Your task to perform on an android device: toggle javascript in the chrome app Image 0: 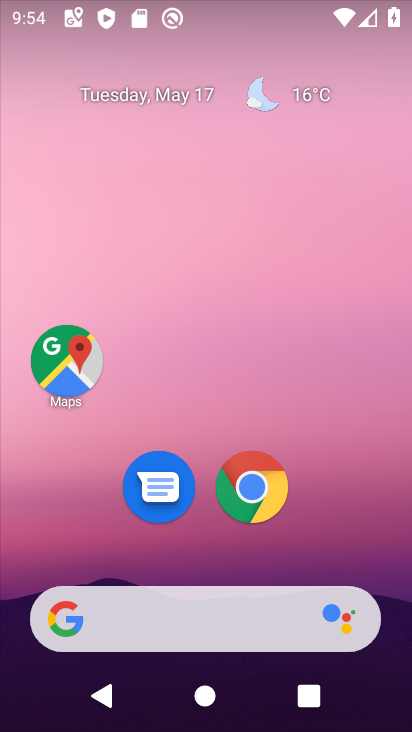
Step 0: click (266, 491)
Your task to perform on an android device: toggle javascript in the chrome app Image 1: 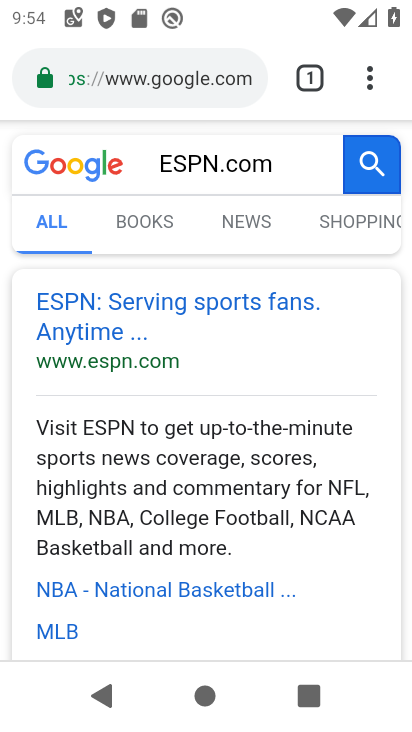
Step 1: click (371, 73)
Your task to perform on an android device: toggle javascript in the chrome app Image 2: 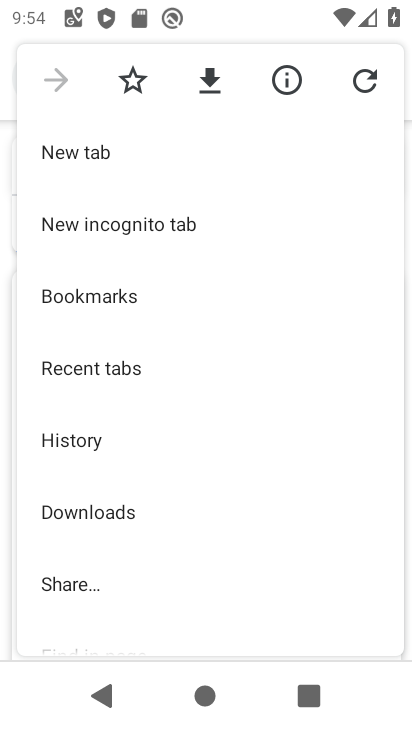
Step 2: drag from (148, 560) to (148, 219)
Your task to perform on an android device: toggle javascript in the chrome app Image 3: 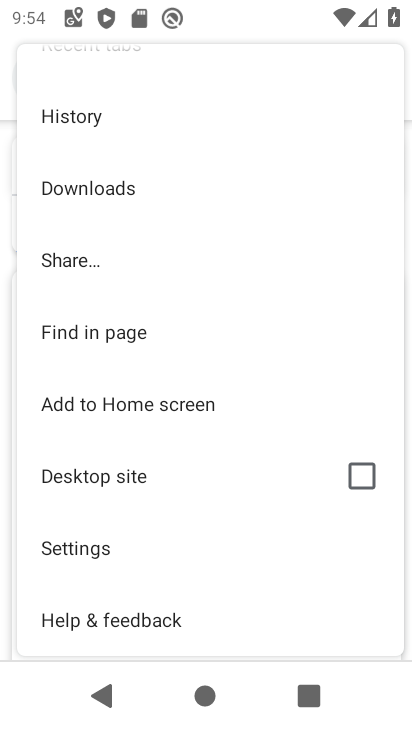
Step 3: click (107, 553)
Your task to perform on an android device: toggle javascript in the chrome app Image 4: 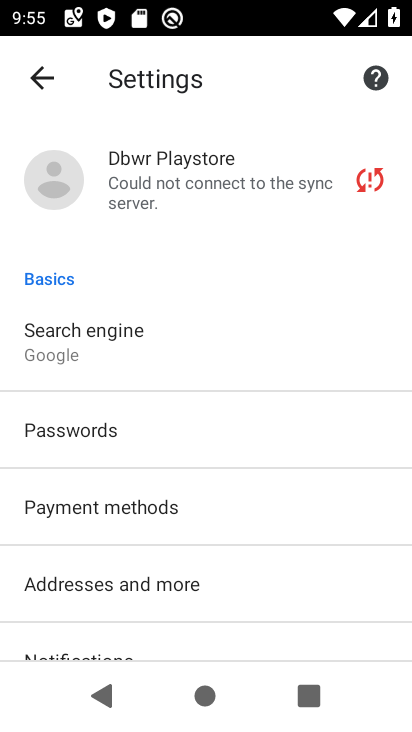
Step 4: drag from (106, 564) to (168, 196)
Your task to perform on an android device: toggle javascript in the chrome app Image 5: 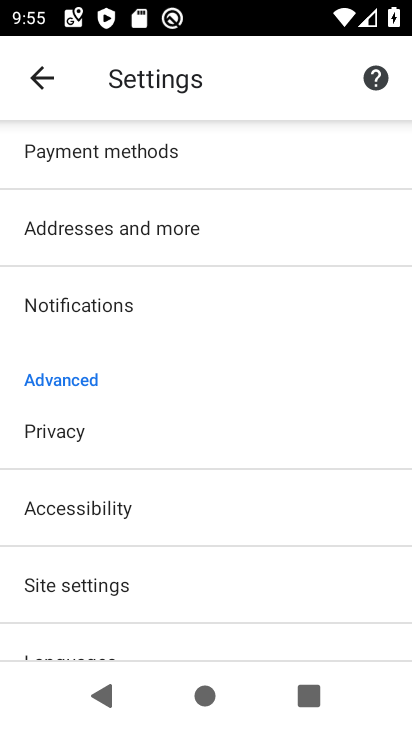
Step 5: drag from (114, 562) to (154, 265)
Your task to perform on an android device: toggle javascript in the chrome app Image 6: 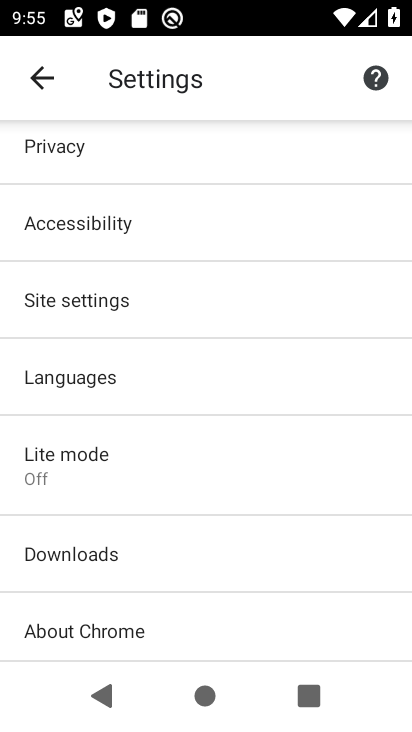
Step 6: click (110, 305)
Your task to perform on an android device: toggle javascript in the chrome app Image 7: 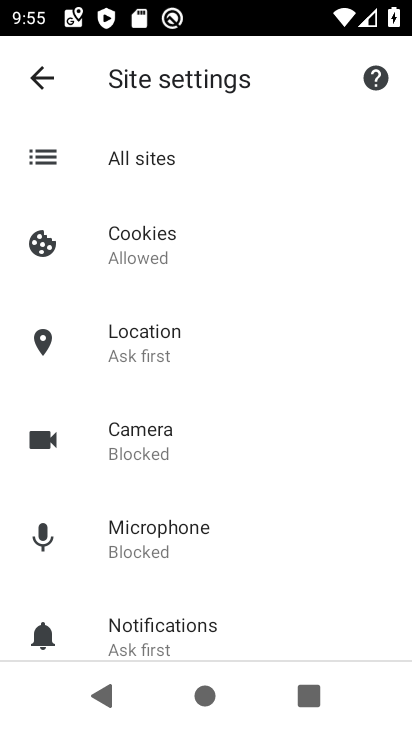
Step 7: drag from (146, 538) to (147, 262)
Your task to perform on an android device: toggle javascript in the chrome app Image 8: 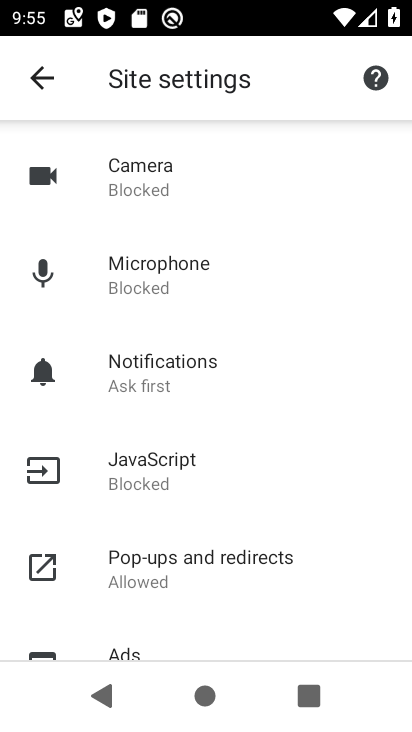
Step 8: click (125, 477)
Your task to perform on an android device: toggle javascript in the chrome app Image 9: 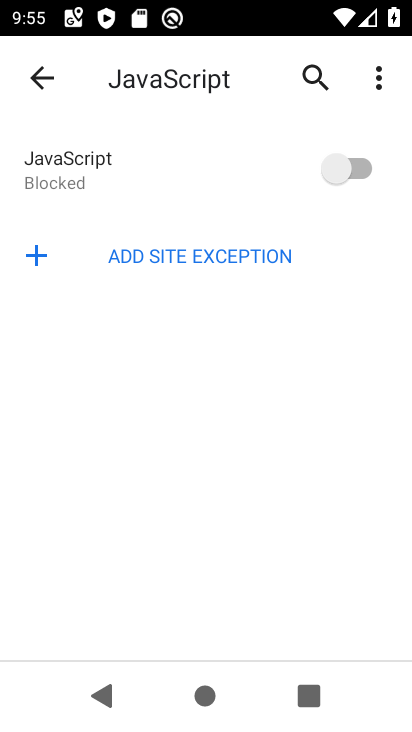
Step 9: click (372, 171)
Your task to perform on an android device: toggle javascript in the chrome app Image 10: 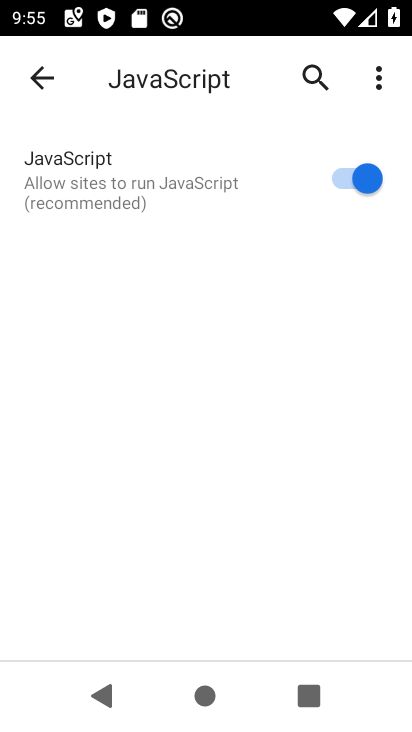
Step 10: task complete